Your task to perform on an android device: Go to Maps Image 0: 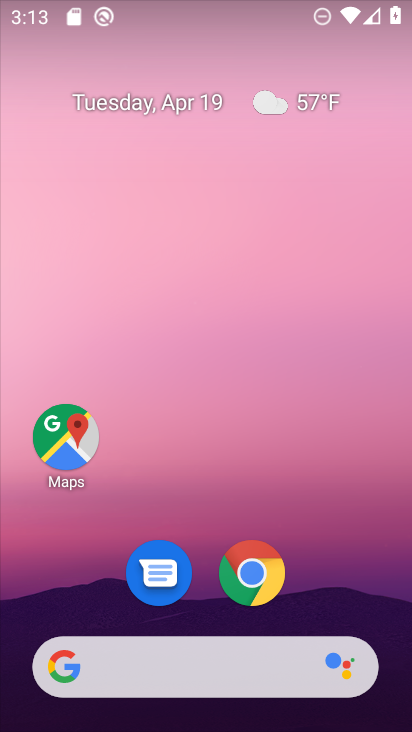
Step 0: click (67, 437)
Your task to perform on an android device: Go to Maps Image 1: 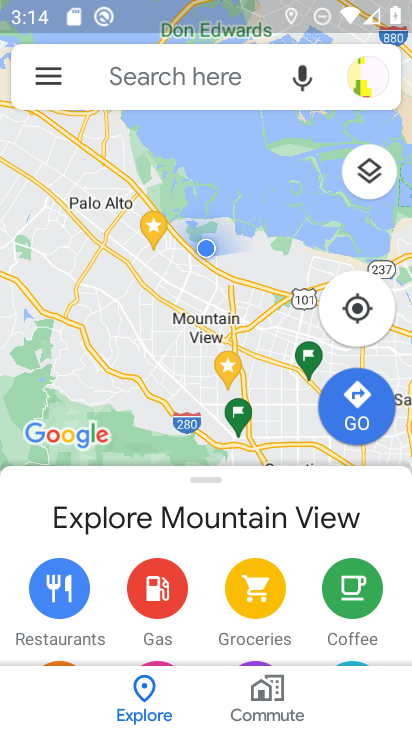
Step 1: task complete